Your task to perform on an android device: check the backup settings in the google photos Image 0: 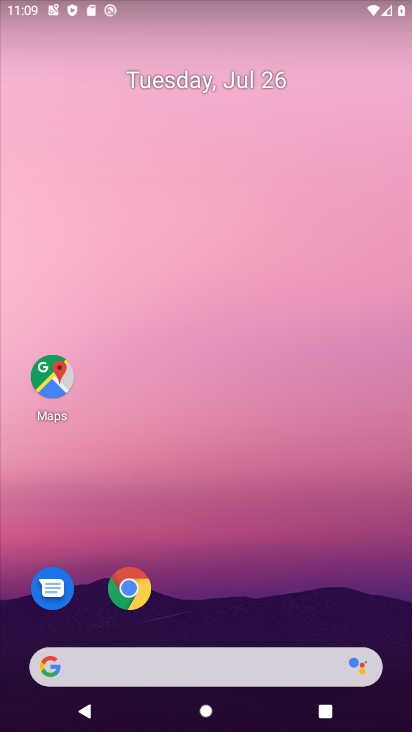
Step 0: drag from (209, 508) to (186, 101)
Your task to perform on an android device: check the backup settings in the google photos Image 1: 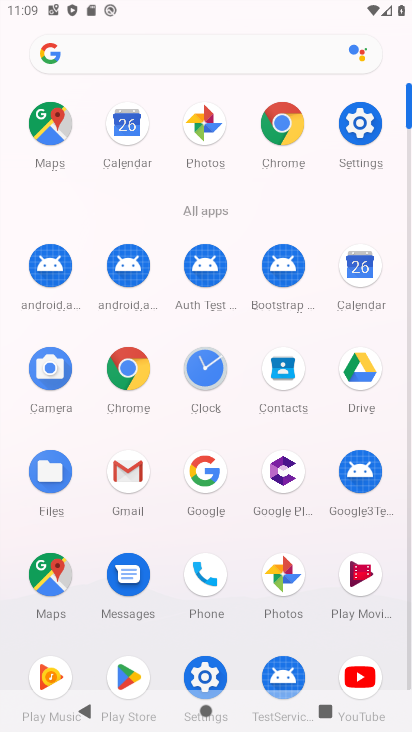
Step 1: click (277, 571)
Your task to perform on an android device: check the backup settings in the google photos Image 2: 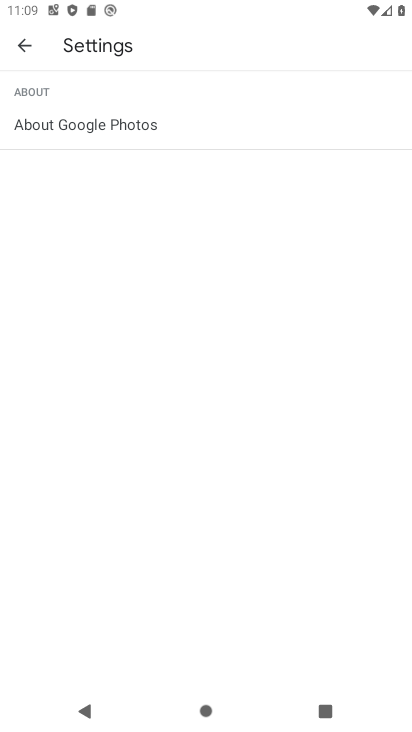
Step 2: click (20, 49)
Your task to perform on an android device: check the backup settings in the google photos Image 3: 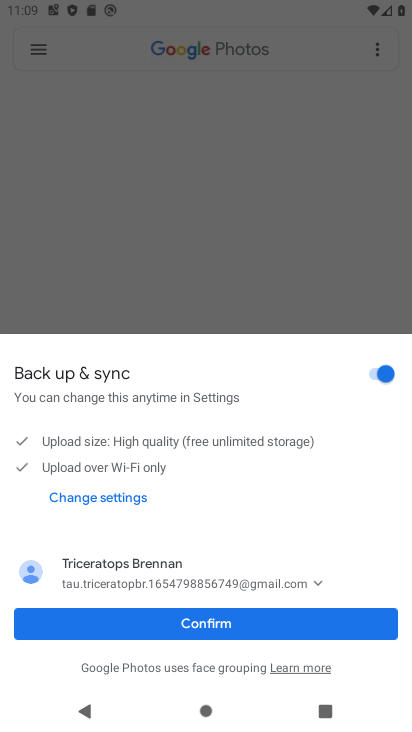
Step 3: click (229, 623)
Your task to perform on an android device: check the backup settings in the google photos Image 4: 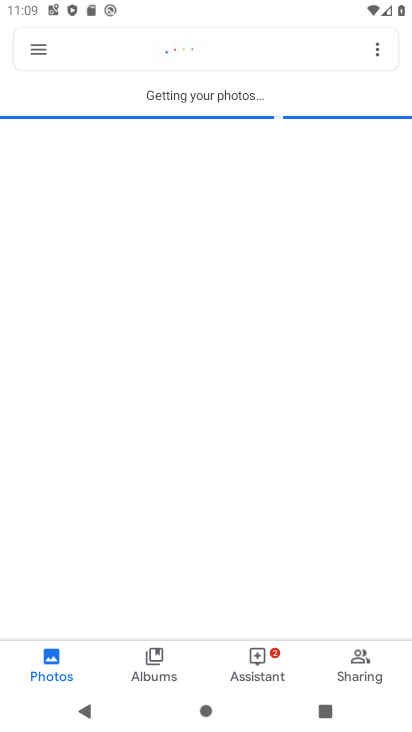
Step 4: click (36, 50)
Your task to perform on an android device: check the backup settings in the google photos Image 5: 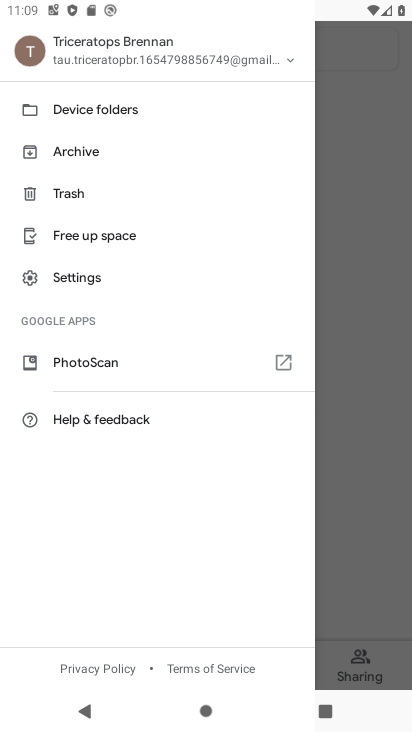
Step 5: click (72, 276)
Your task to perform on an android device: check the backup settings in the google photos Image 6: 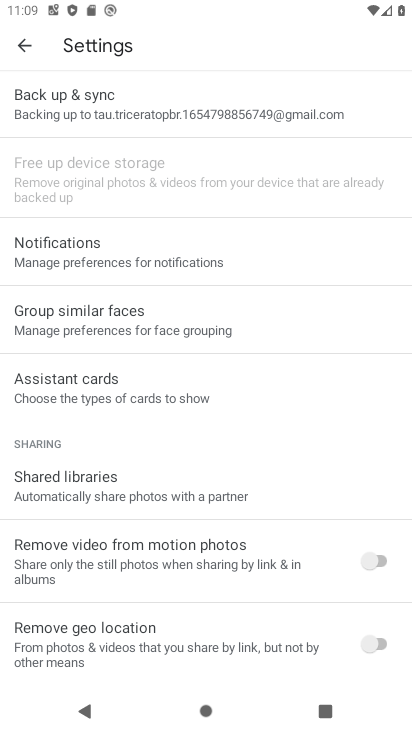
Step 6: click (112, 115)
Your task to perform on an android device: check the backup settings in the google photos Image 7: 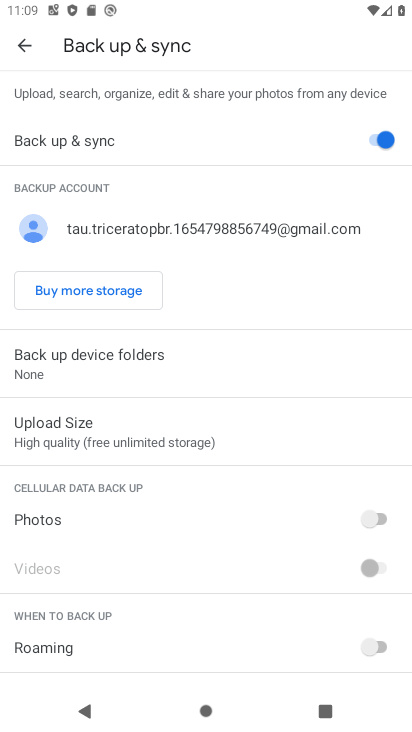
Step 7: task complete